Your task to perform on an android device: visit the assistant section in the google photos Image 0: 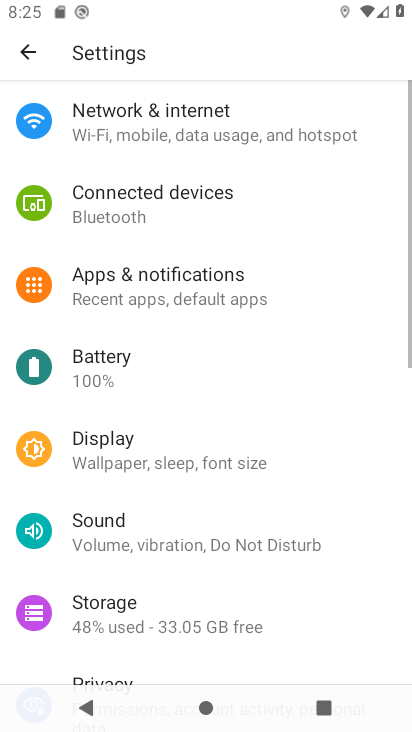
Step 0: press home button
Your task to perform on an android device: visit the assistant section in the google photos Image 1: 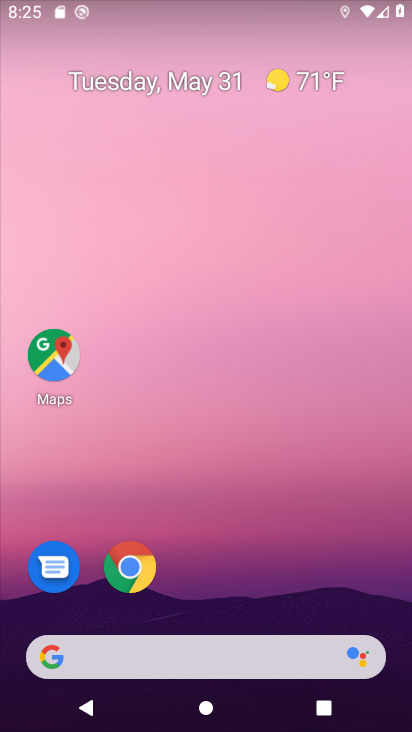
Step 1: drag from (230, 602) to (278, 241)
Your task to perform on an android device: visit the assistant section in the google photos Image 2: 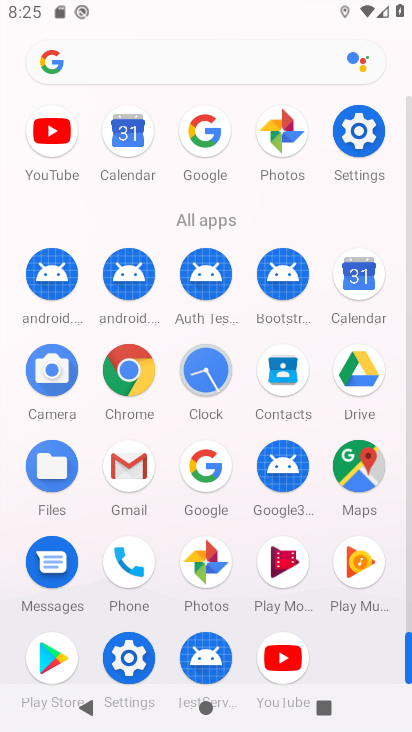
Step 2: click (201, 569)
Your task to perform on an android device: visit the assistant section in the google photos Image 3: 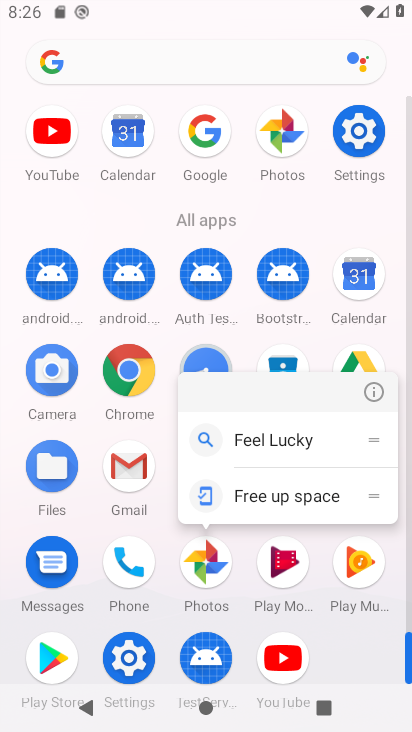
Step 3: click (200, 578)
Your task to perform on an android device: visit the assistant section in the google photos Image 4: 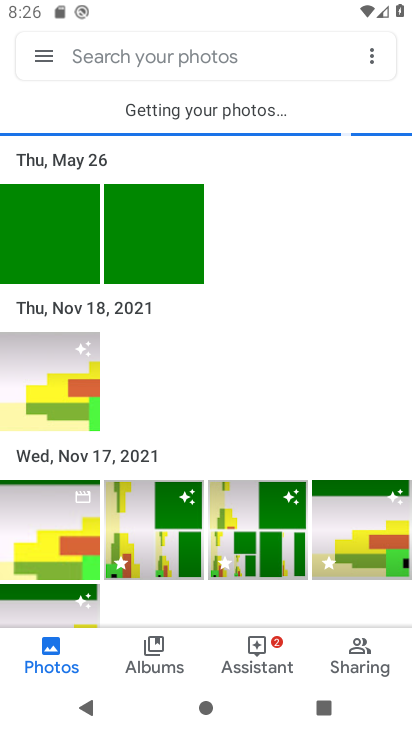
Step 4: task complete